Your task to perform on an android device: Check the news Image 0: 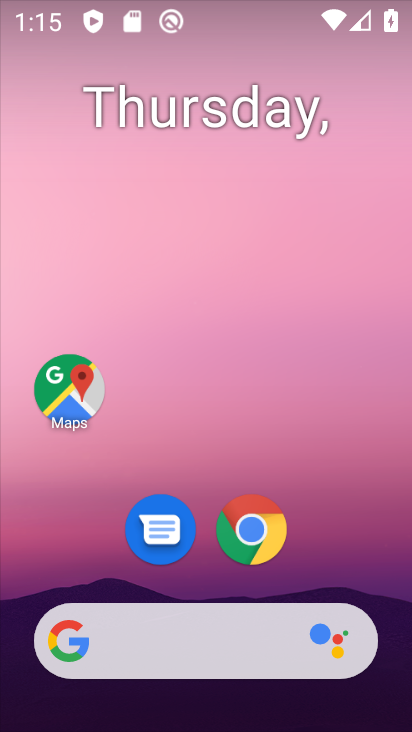
Step 0: drag from (3, 271) to (410, 315)
Your task to perform on an android device: Check the news Image 1: 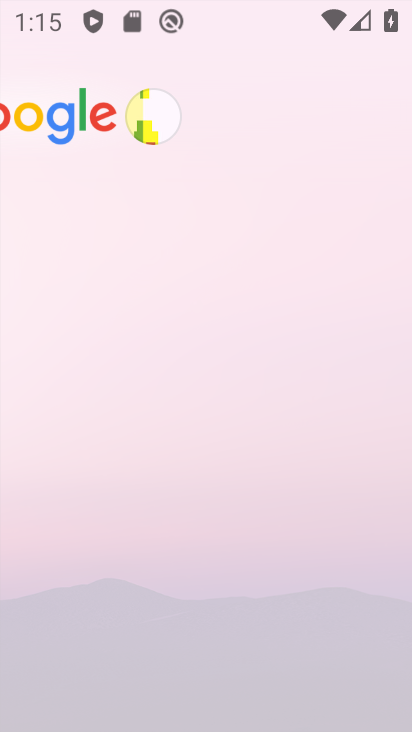
Step 1: task complete